Your task to perform on an android device: set default search engine in the chrome app Image 0: 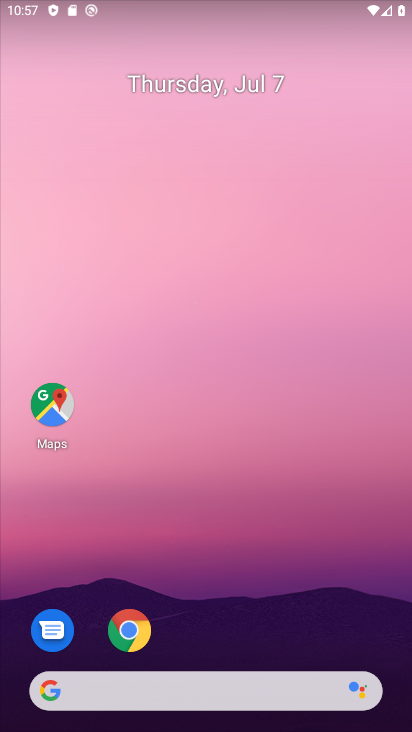
Step 0: drag from (402, 673) to (278, 81)
Your task to perform on an android device: set default search engine in the chrome app Image 1: 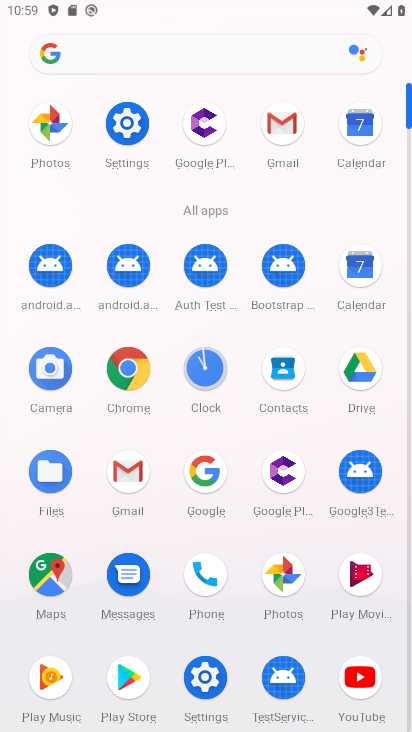
Step 1: click (120, 371)
Your task to perform on an android device: set default search engine in the chrome app Image 2: 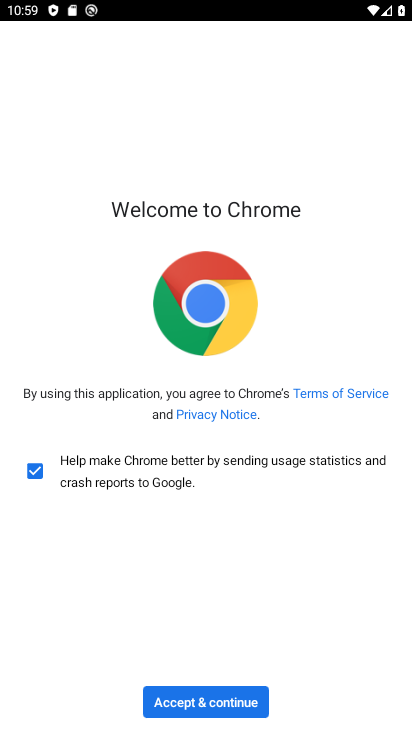
Step 2: click (171, 698)
Your task to perform on an android device: set default search engine in the chrome app Image 3: 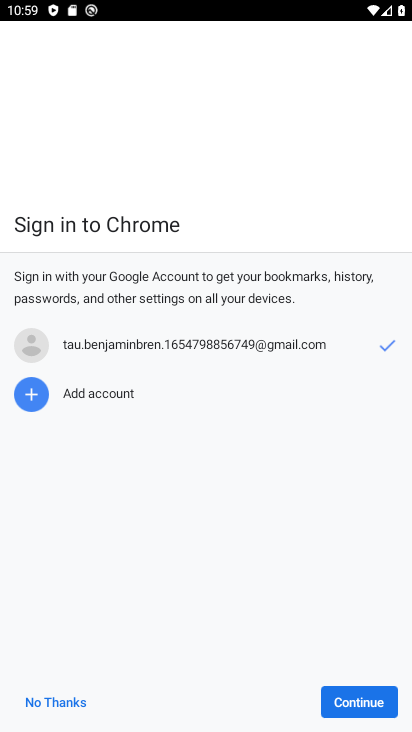
Step 3: click (385, 697)
Your task to perform on an android device: set default search engine in the chrome app Image 4: 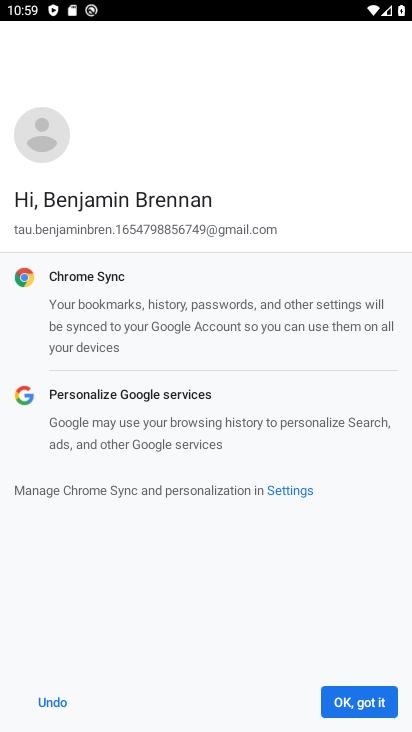
Step 4: click (365, 707)
Your task to perform on an android device: set default search engine in the chrome app Image 5: 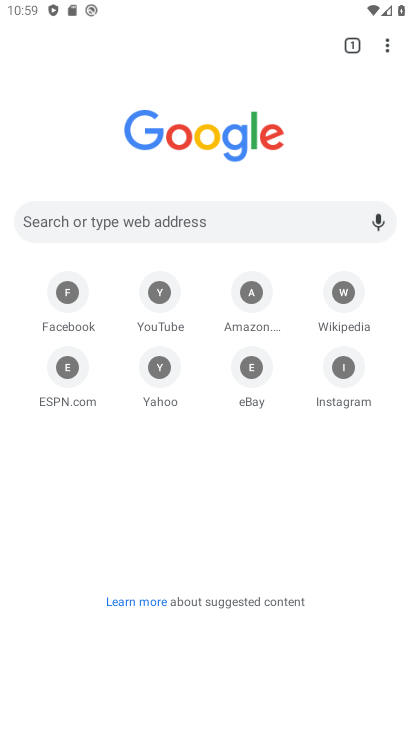
Step 5: click (388, 47)
Your task to perform on an android device: set default search engine in the chrome app Image 6: 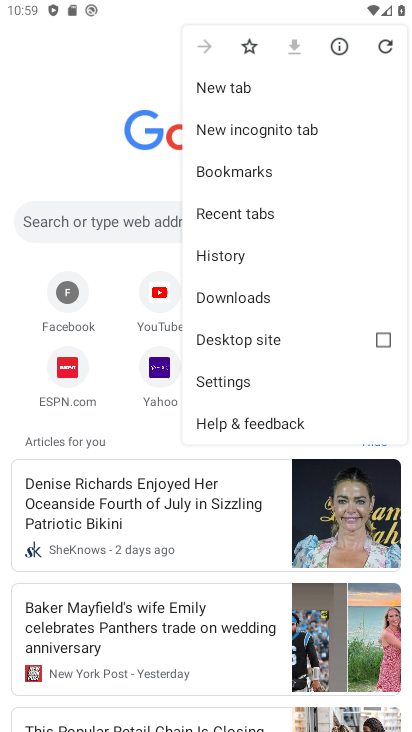
Step 6: click (219, 382)
Your task to perform on an android device: set default search engine in the chrome app Image 7: 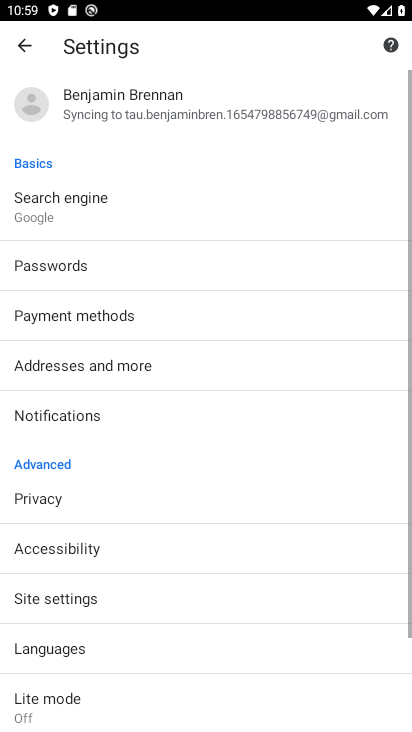
Step 7: click (84, 207)
Your task to perform on an android device: set default search engine in the chrome app Image 8: 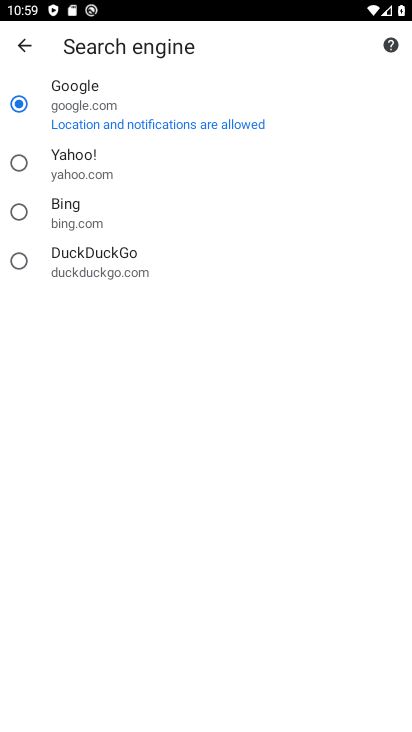
Step 8: click (58, 164)
Your task to perform on an android device: set default search engine in the chrome app Image 9: 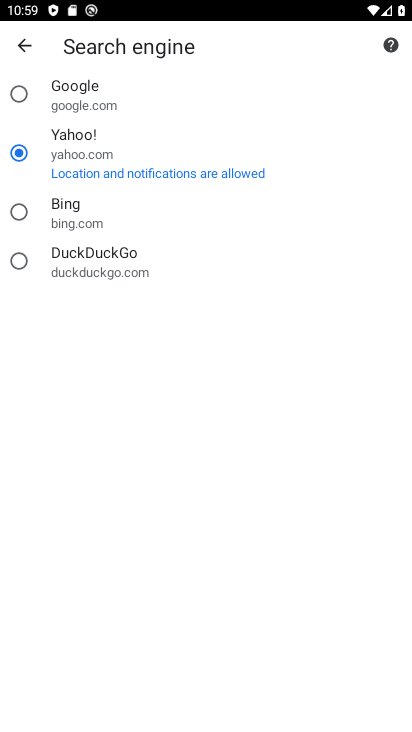
Step 9: task complete